Your task to perform on an android device: find snoozed emails in the gmail app Image 0: 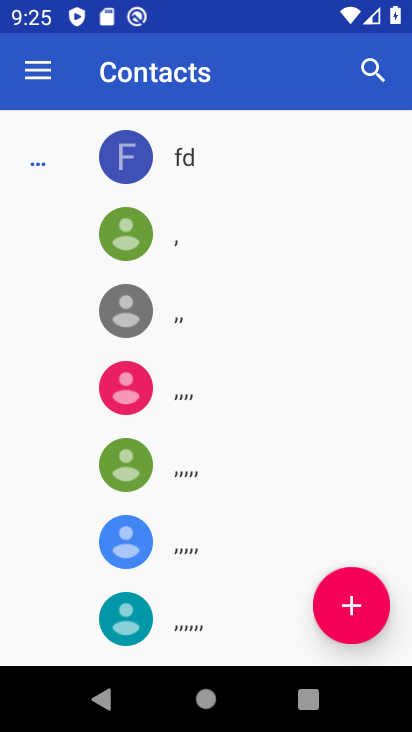
Step 0: press home button
Your task to perform on an android device: find snoozed emails in the gmail app Image 1: 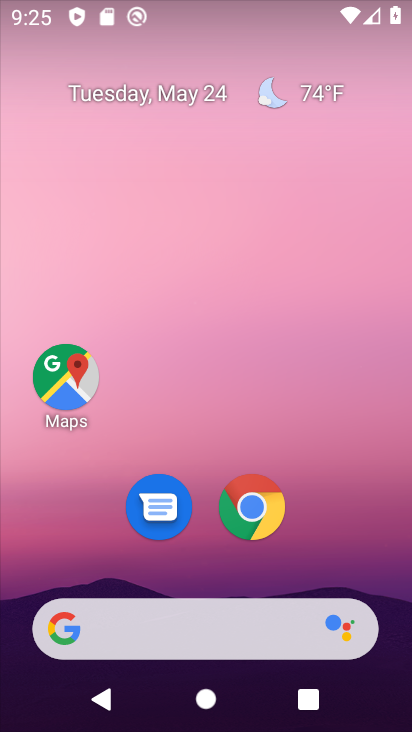
Step 1: drag from (176, 711) to (137, 219)
Your task to perform on an android device: find snoozed emails in the gmail app Image 2: 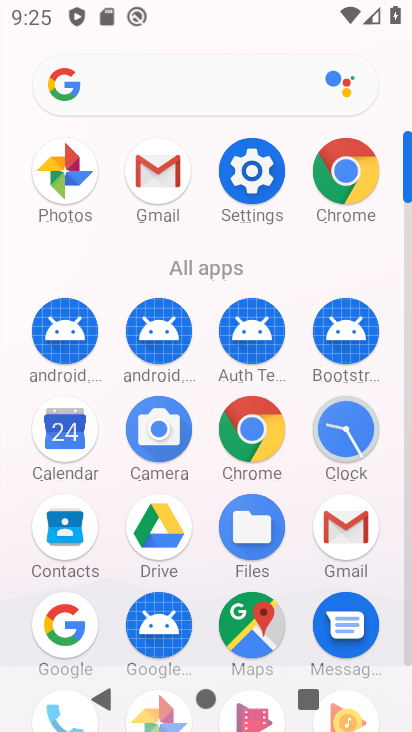
Step 2: click (338, 520)
Your task to perform on an android device: find snoozed emails in the gmail app Image 3: 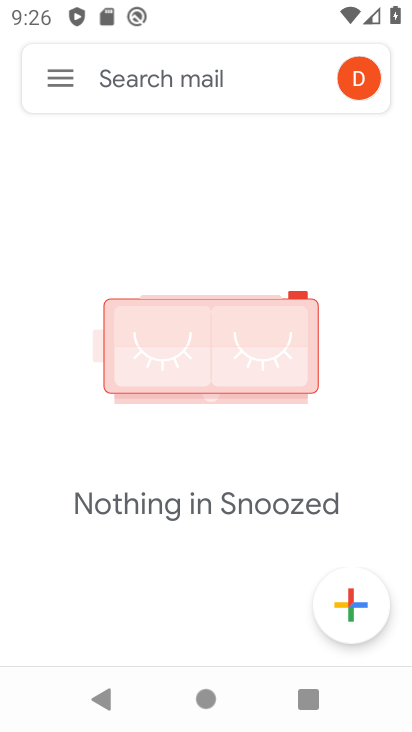
Step 3: task complete